Your task to perform on an android device: Go to Yahoo.com Image 0: 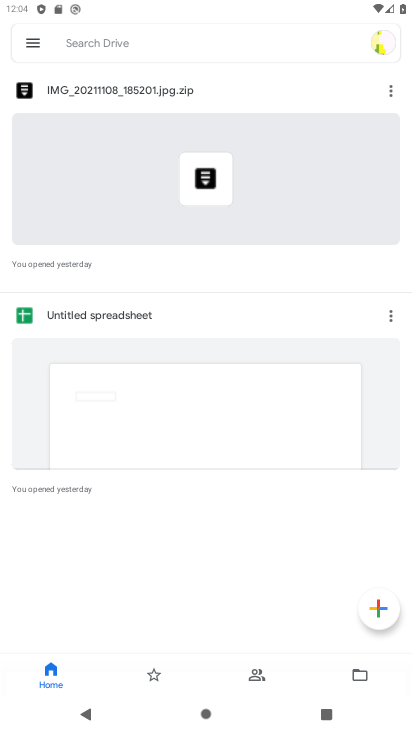
Step 0: press home button
Your task to perform on an android device: Go to Yahoo.com Image 1: 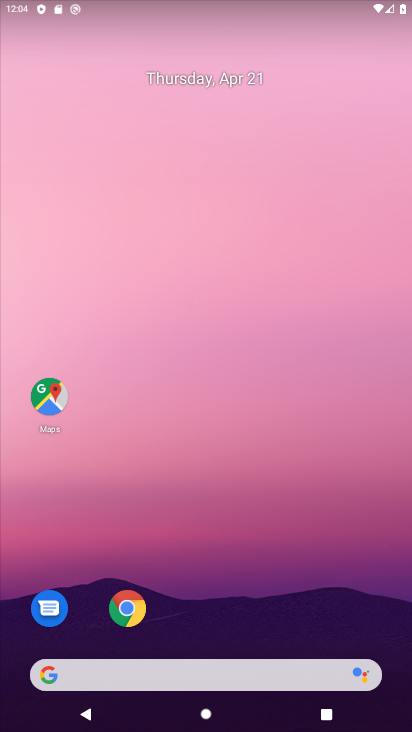
Step 1: click (214, 672)
Your task to perform on an android device: Go to Yahoo.com Image 2: 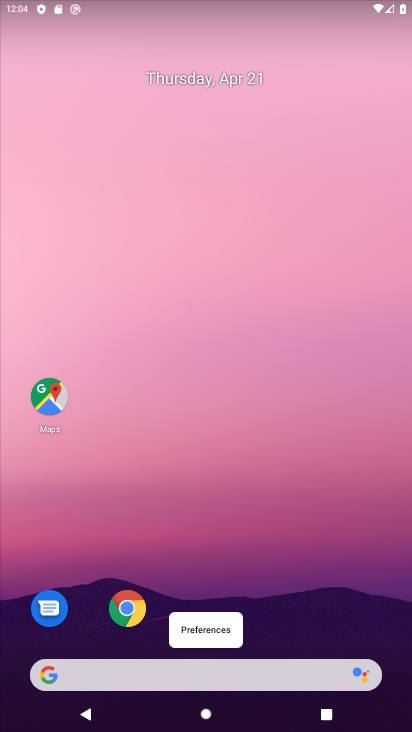
Step 2: click (211, 674)
Your task to perform on an android device: Go to Yahoo.com Image 3: 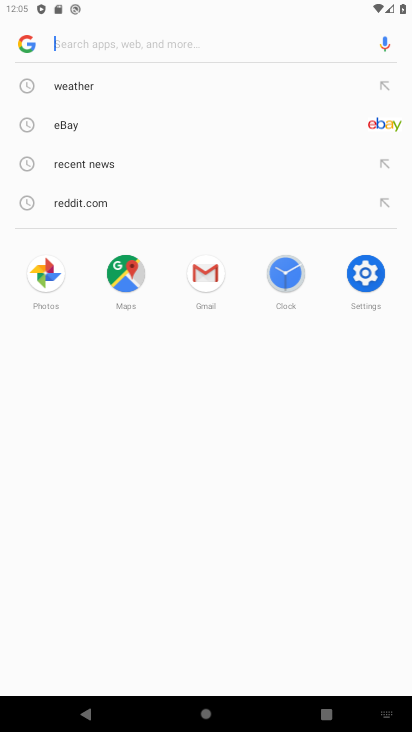
Step 3: type "Yahoo.com"
Your task to perform on an android device: Go to Yahoo.com Image 4: 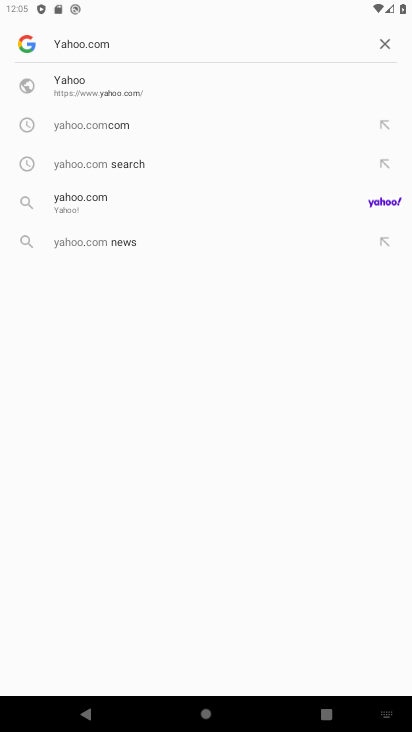
Step 4: click (112, 92)
Your task to perform on an android device: Go to Yahoo.com Image 5: 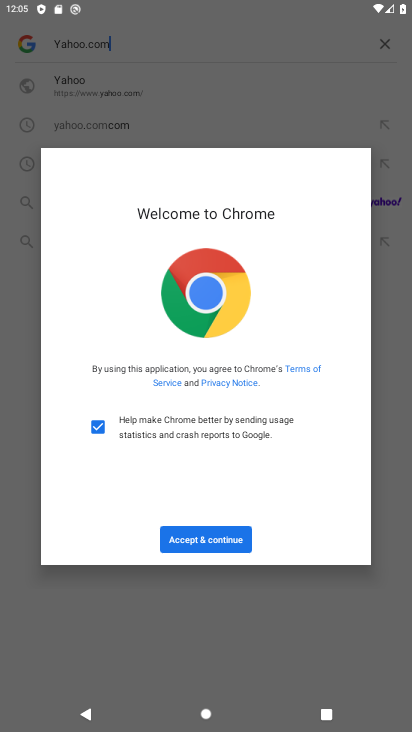
Step 5: click (208, 531)
Your task to perform on an android device: Go to Yahoo.com Image 6: 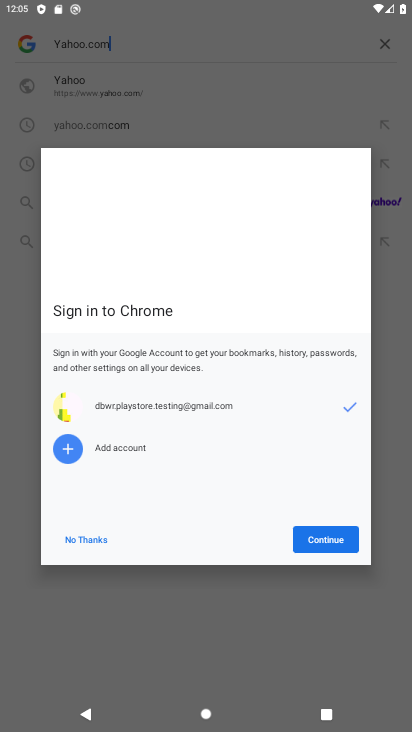
Step 6: click (301, 529)
Your task to perform on an android device: Go to Yahoo.com Image 7: 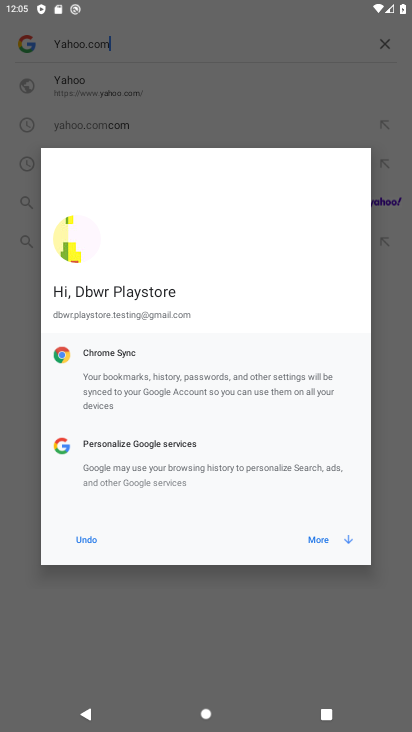
Step 7: click (316, 535)
Your task to perform on an android device: Go to Yahoo.com Image 8: 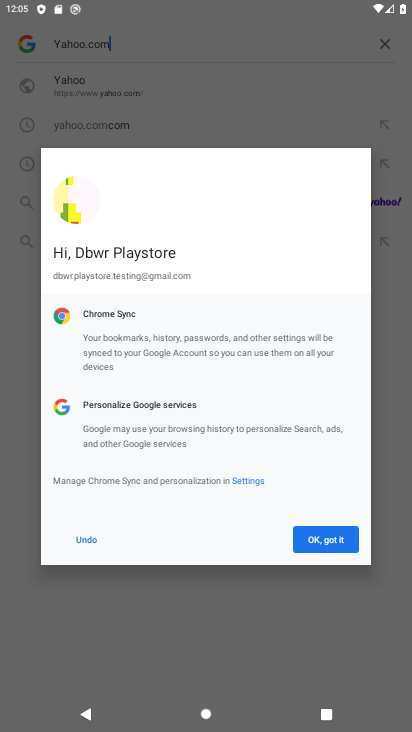
Step 8: click (314, 531)
Your task to perform on an android device: Go to Yahoo.com Image 9: 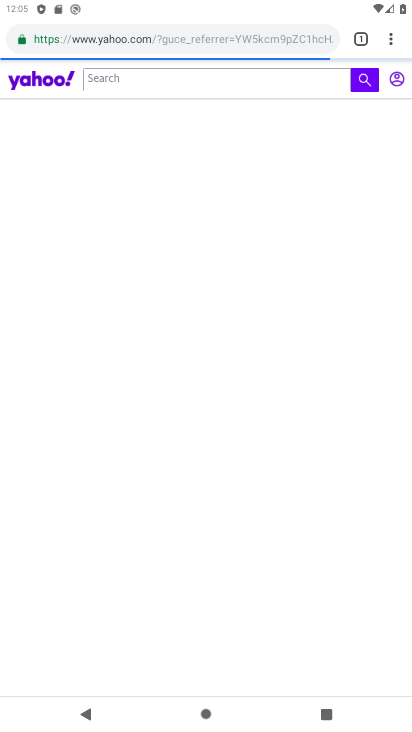
Step 9: task complete